Your task to perform on an android device: Search for hotels in Seattle Image 0: 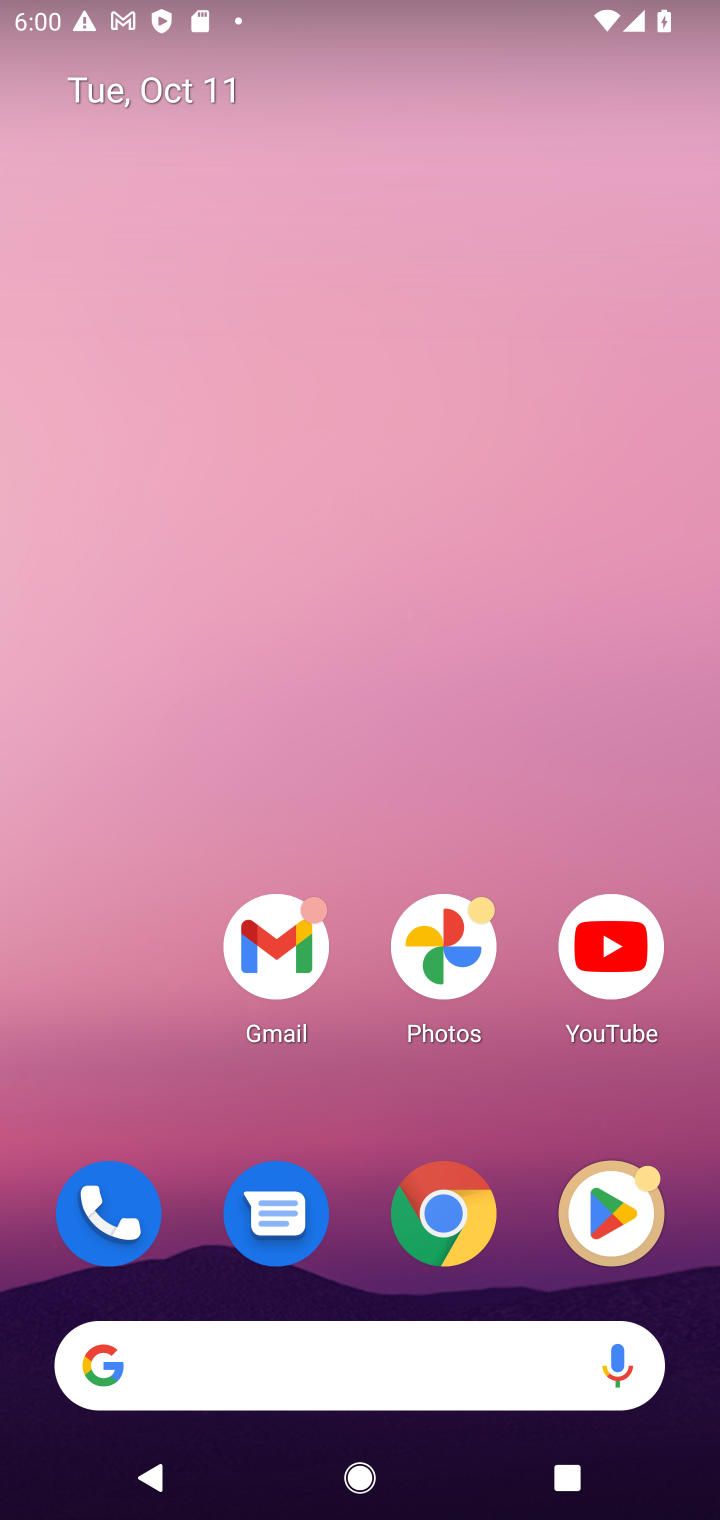
Step 0: drag from (363, 1127) to (404, 422)
Your task to perform on an android device: Search for hotels in Seattle Image 1: 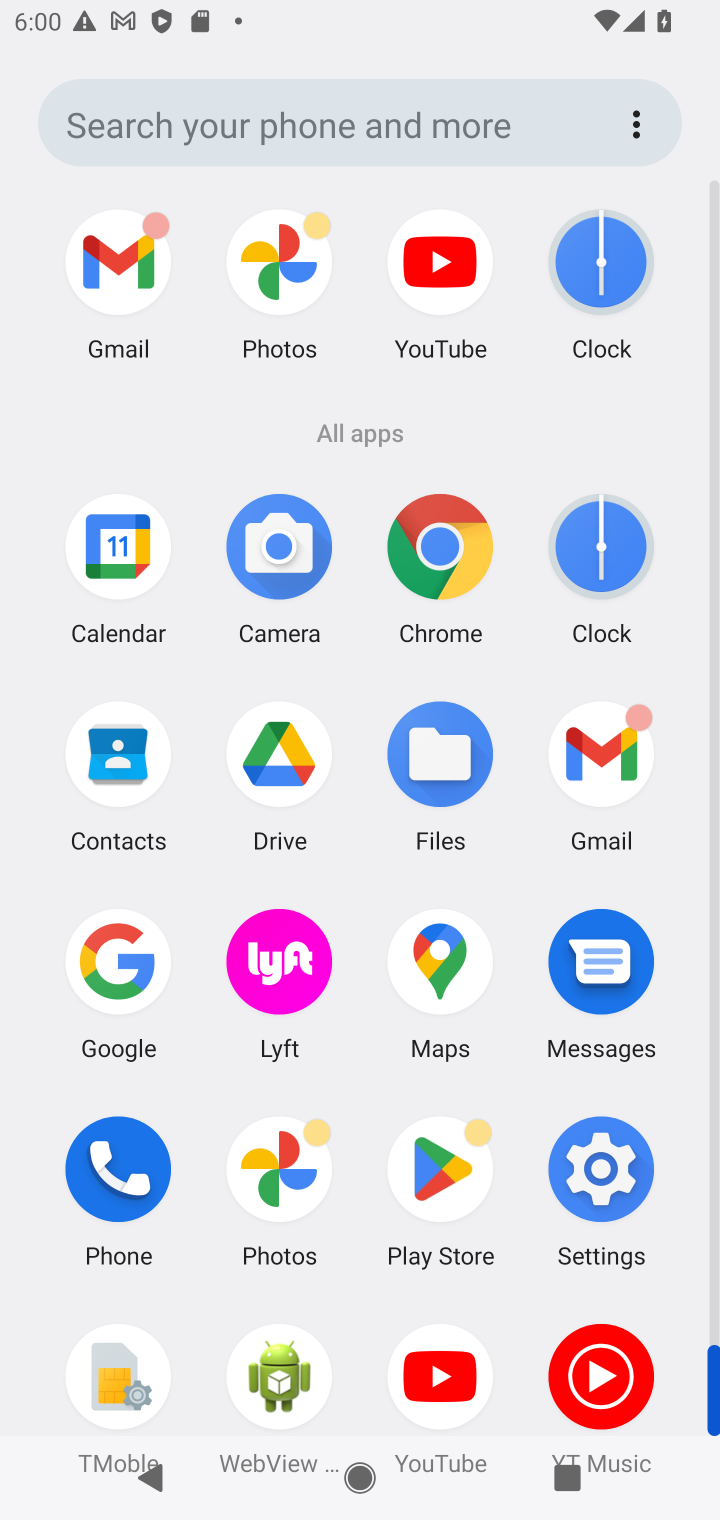
Step 1: click (130, 975)
Your task to perform on an android device: Search for hotels in Seattle Image 2: 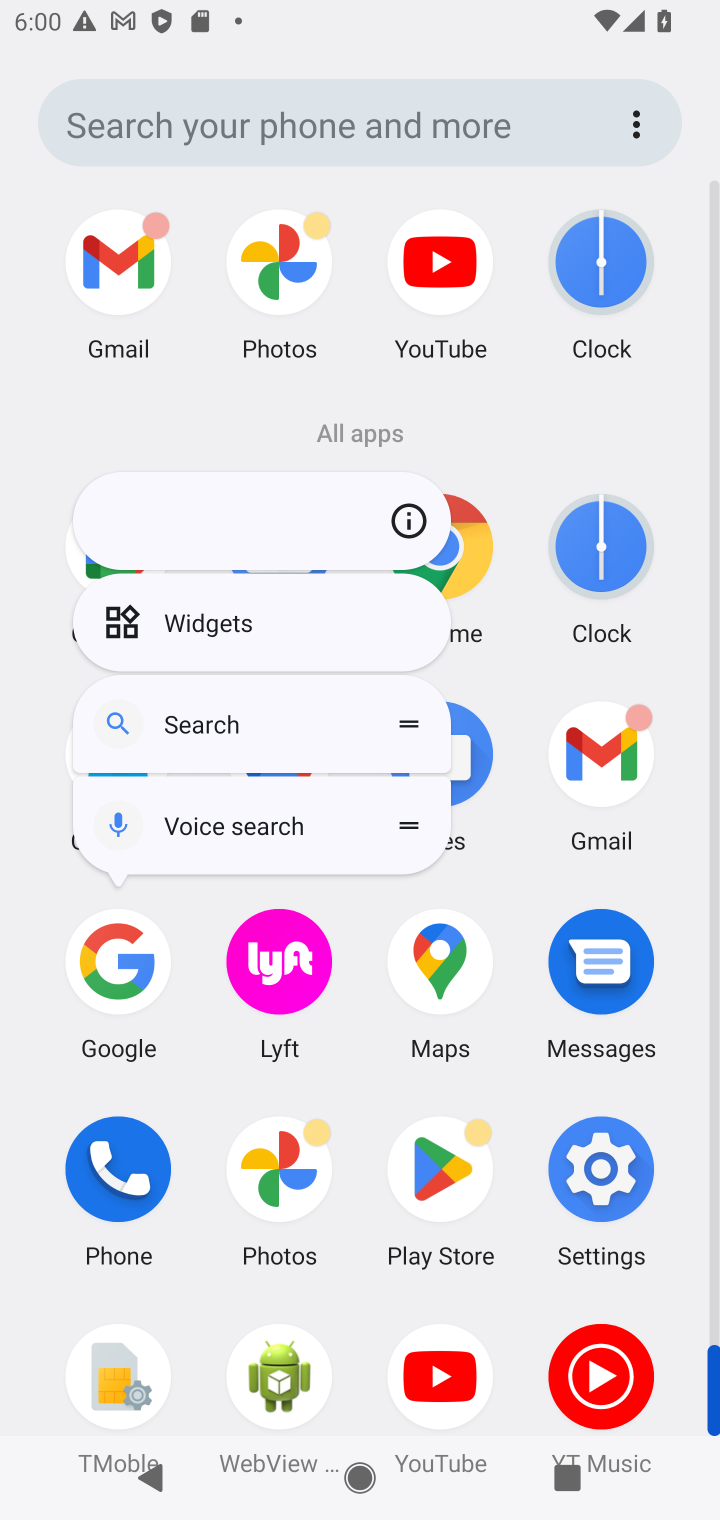
Step 2: click (240, 117)
Your task to perform on an android device: Search for hotels in Seattle Image 3: 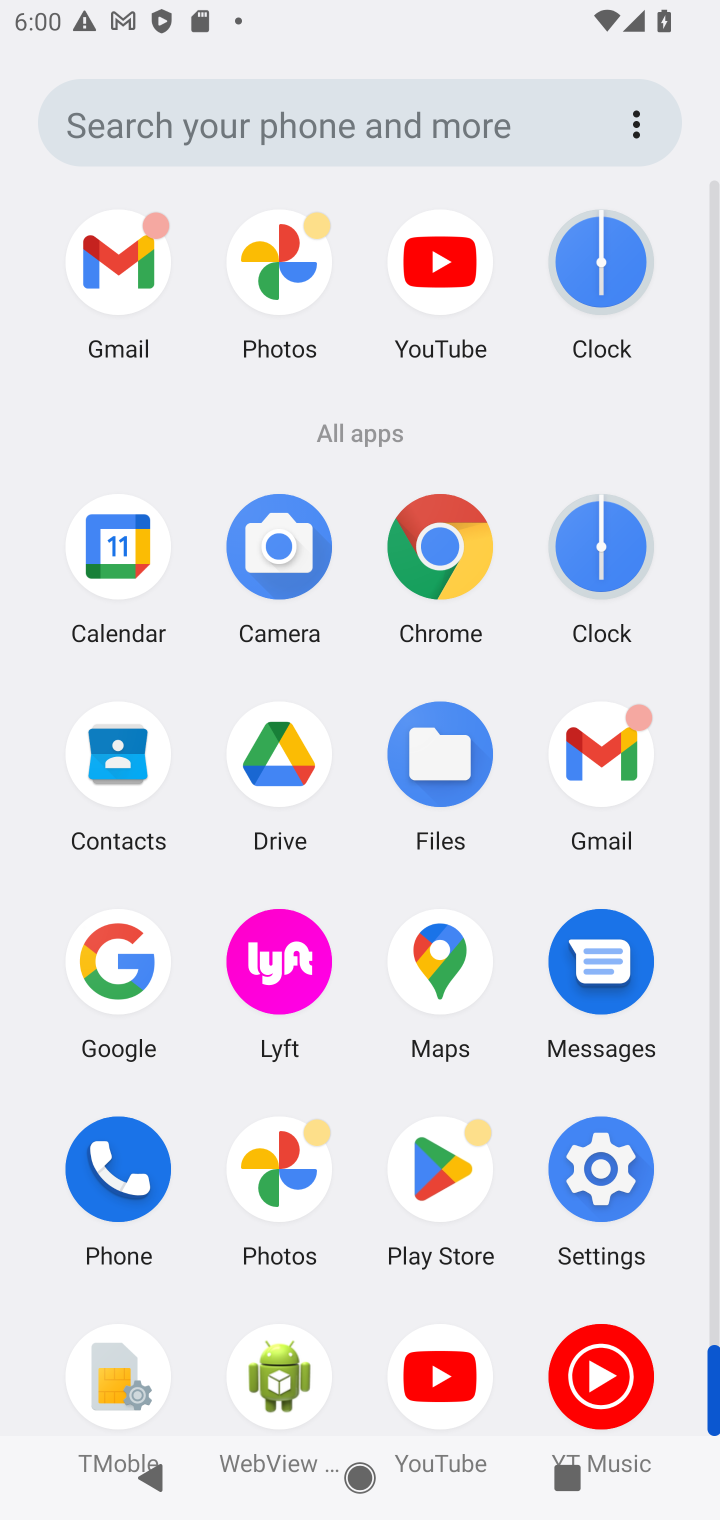
Step 3: click (115, 977)
Your task to perform on an android device: Search for hotels in Seattle Image 4: 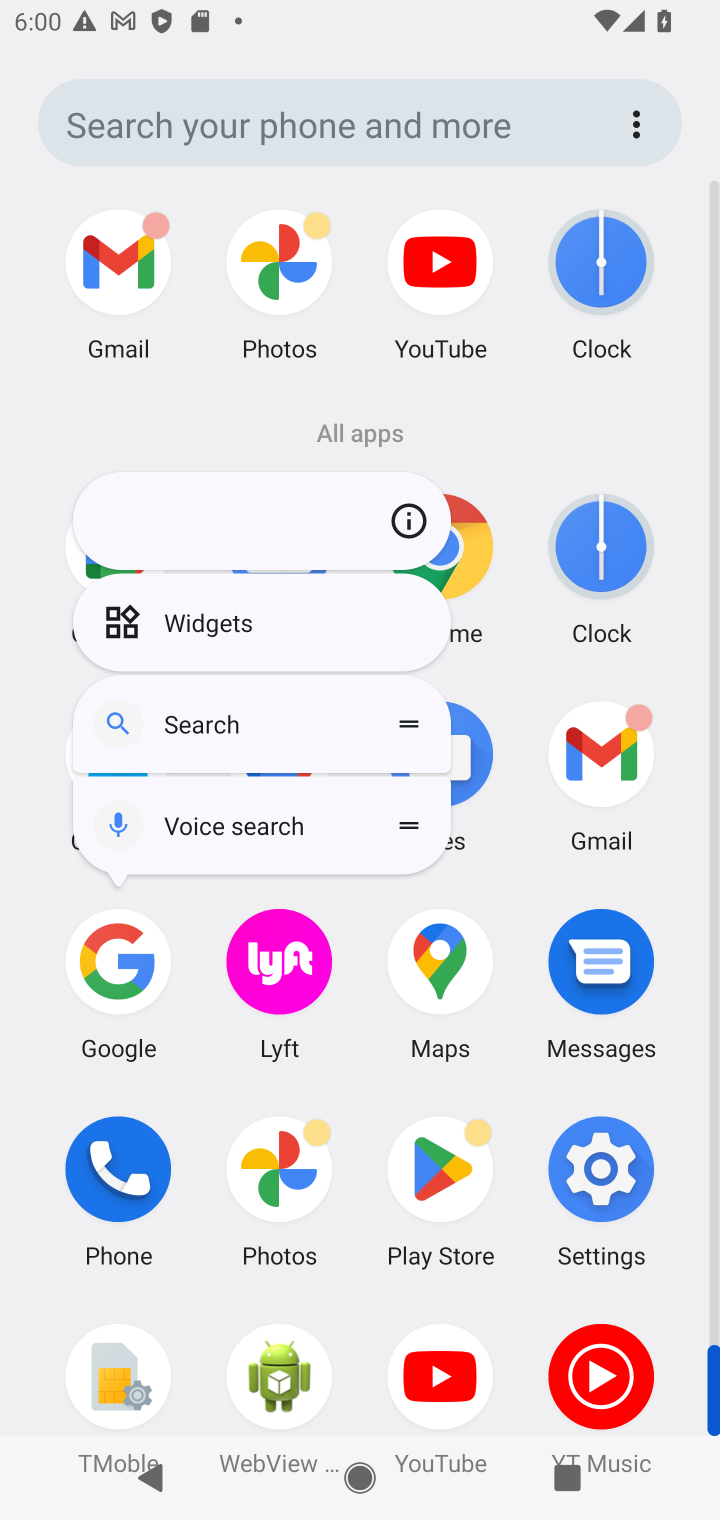
Step 4: click (123, 952)
Your task to perform on an android device: Search for hotels in Seattle Image 5: 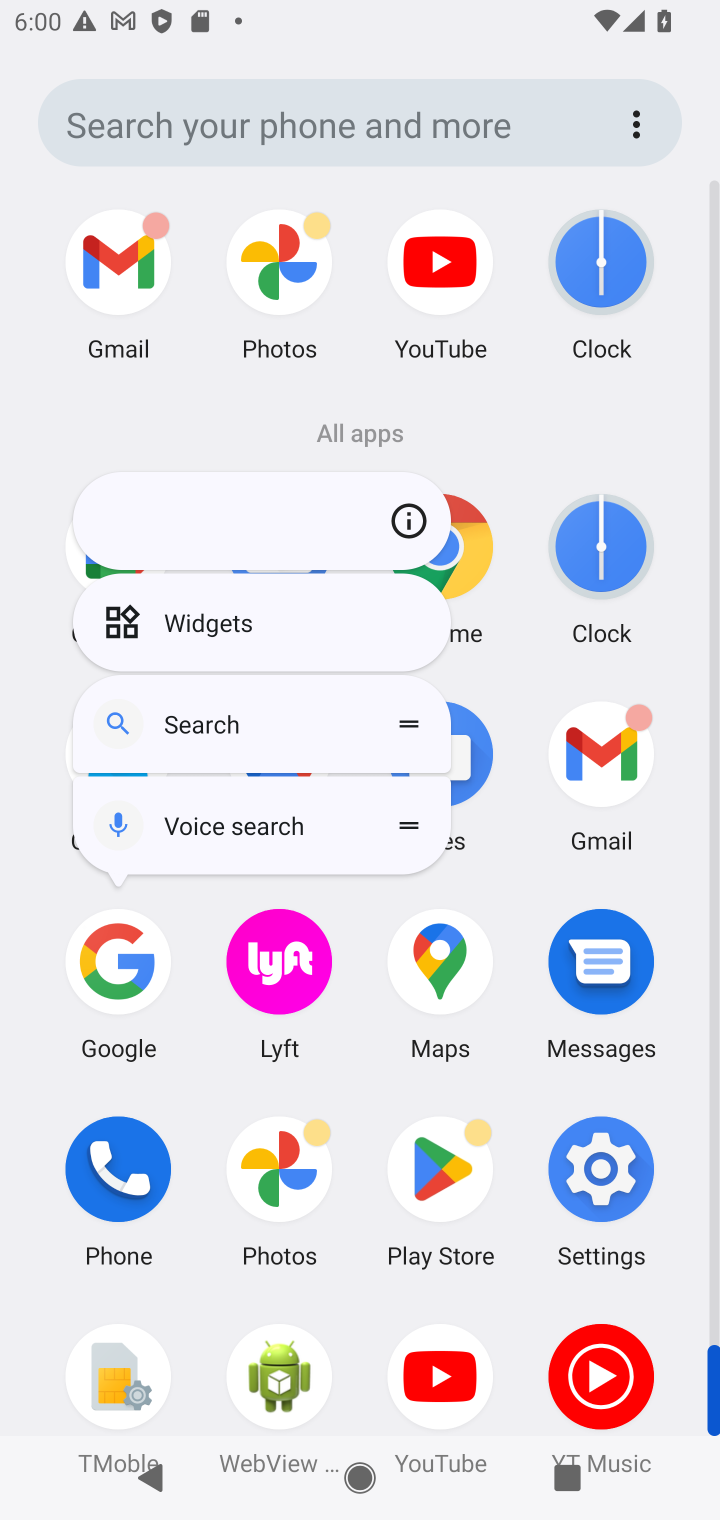
Step 5: click (115, 965)
Your task to perform on an android device: Search for hotels in Seattle Image 6: 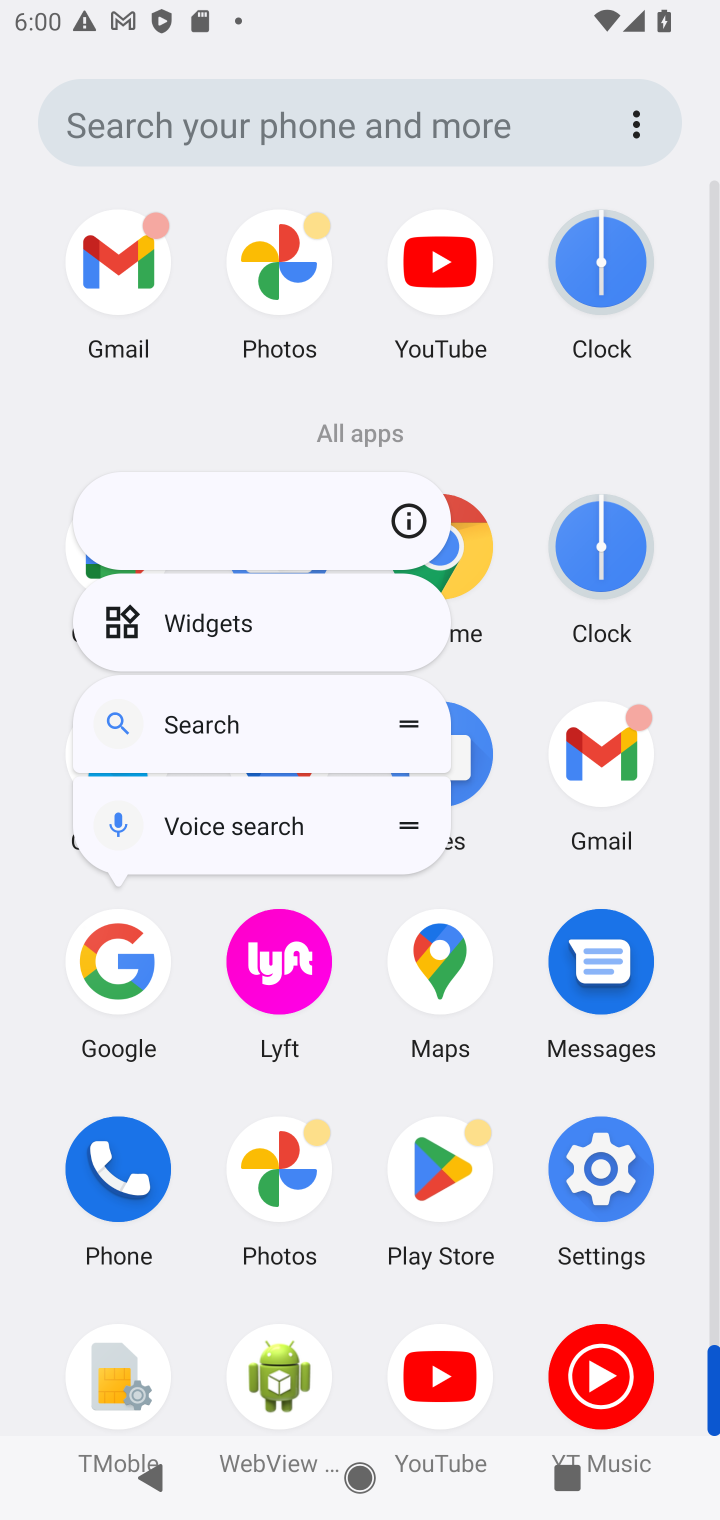
Step 6: click (102, 968)
Your task to perform on an android device: Search for hotels in Seattle Image 7: 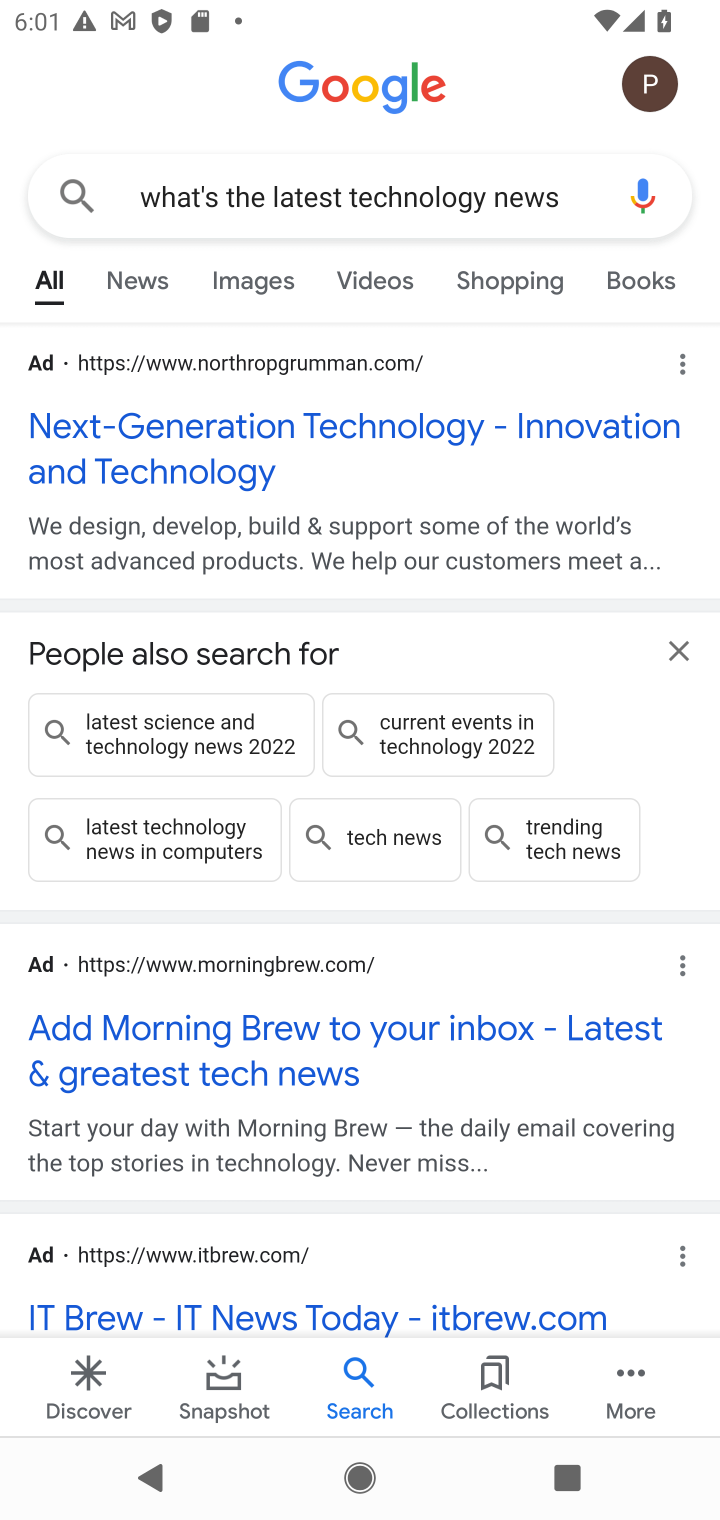
Step 7: click (279, 189)
Your task to perform on an android device: Search for hotels in Seattle Image 8: 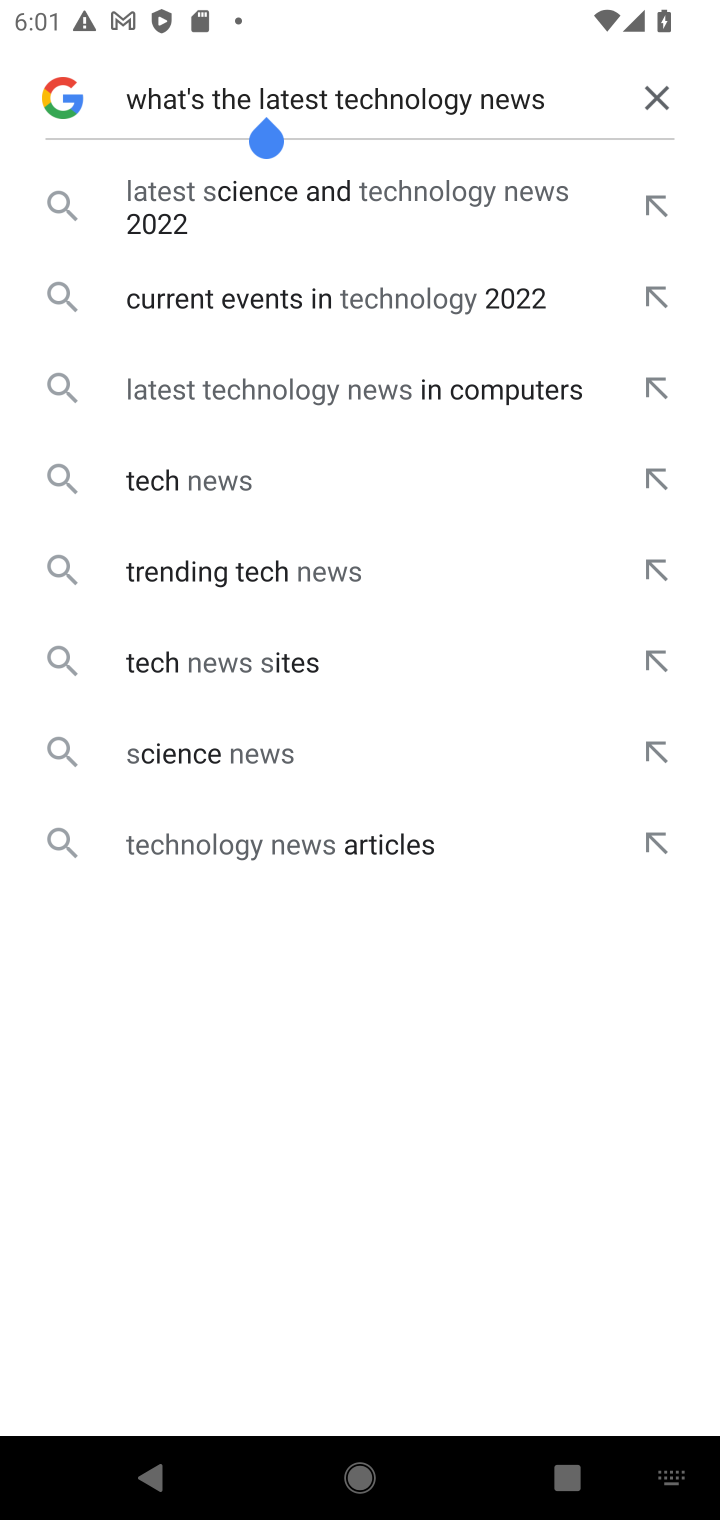
Step 8: click (674, 102)
Your task to perform on an android device: Search for hotels in Seattle Image 9: 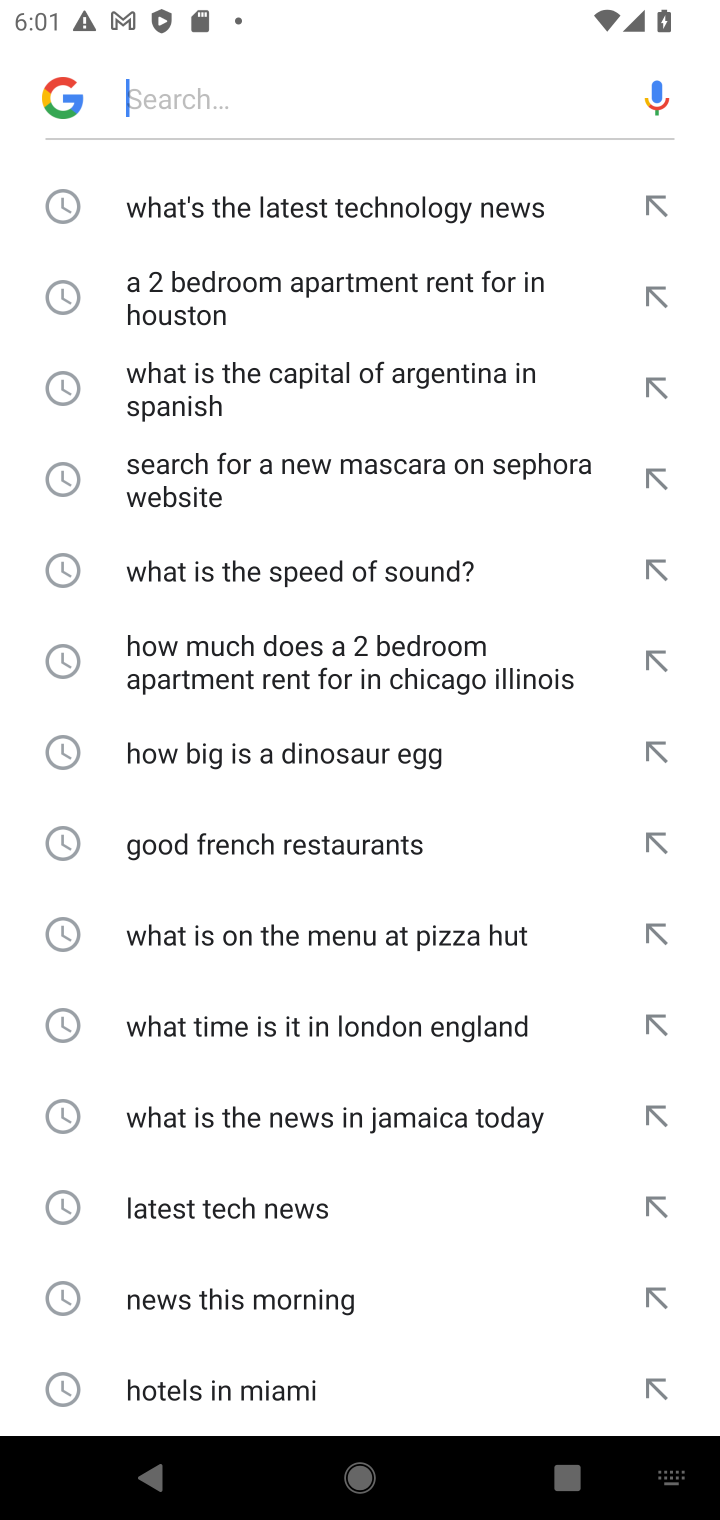
Step 9: type "Search for hotels in Seattle"
Your task to perform on an android device: Search for hotels in Seattle Image 10: 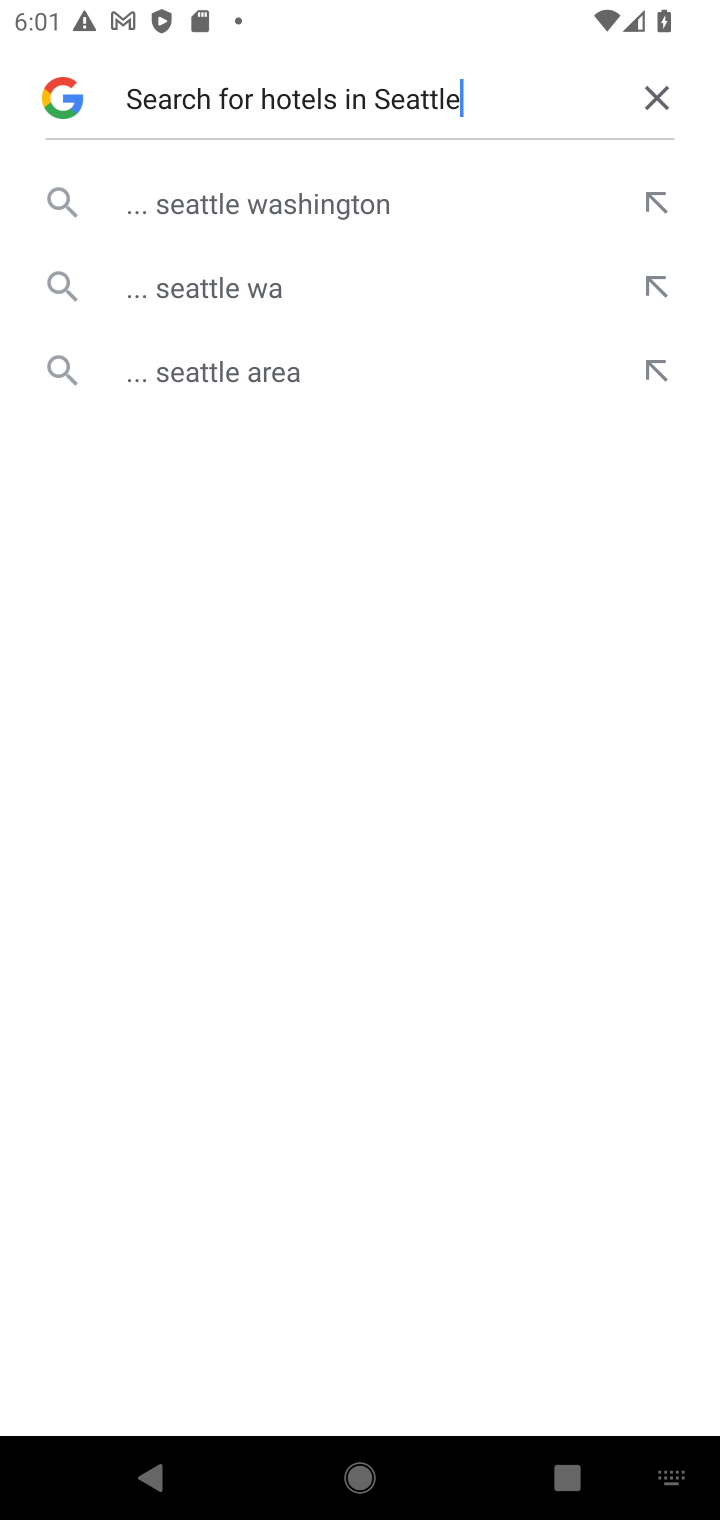
Step 10: click (267, 200)
Your task to perform on an android device: Search for hotels in Seattle Image 11: 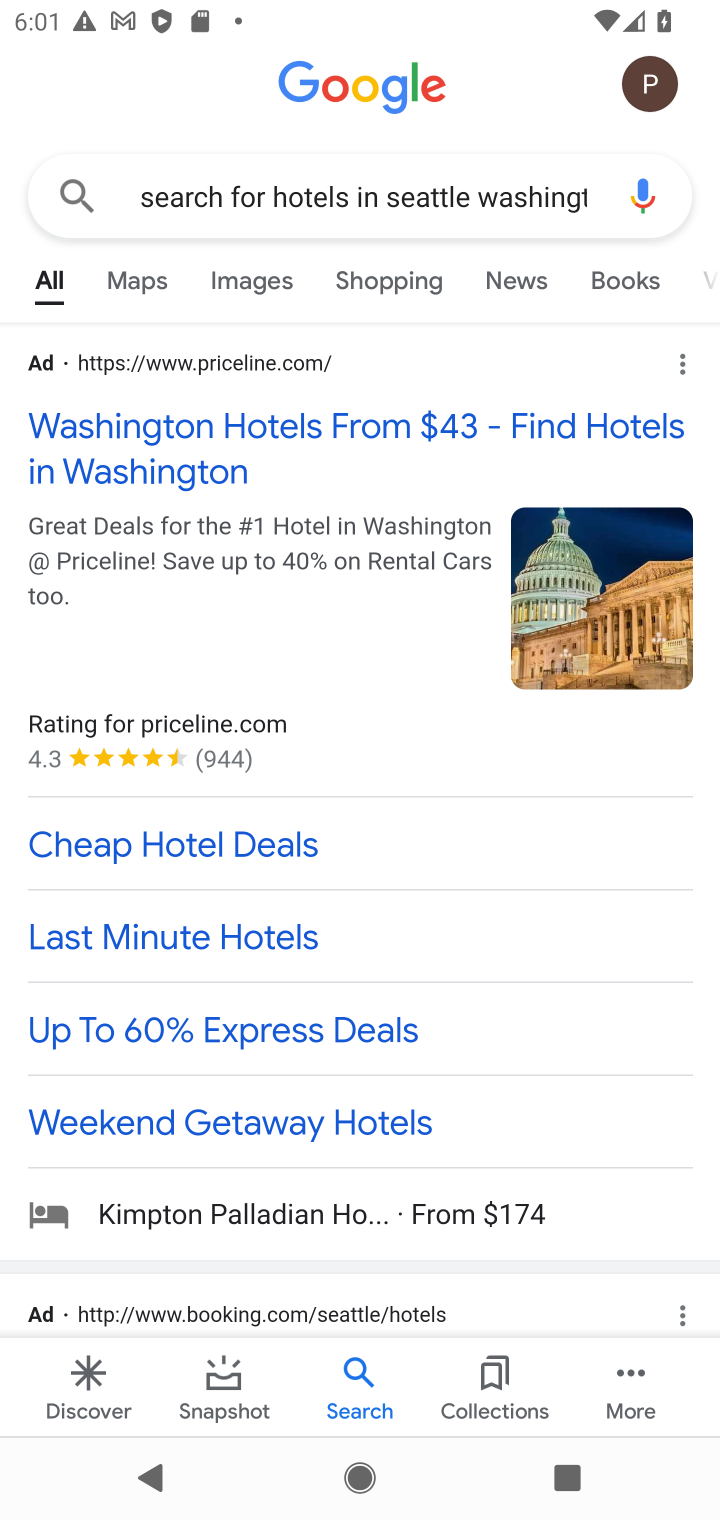
Step 11: click (333, 438)
Your task to perform on an android device: Search for hotels in Seattle Image 12: 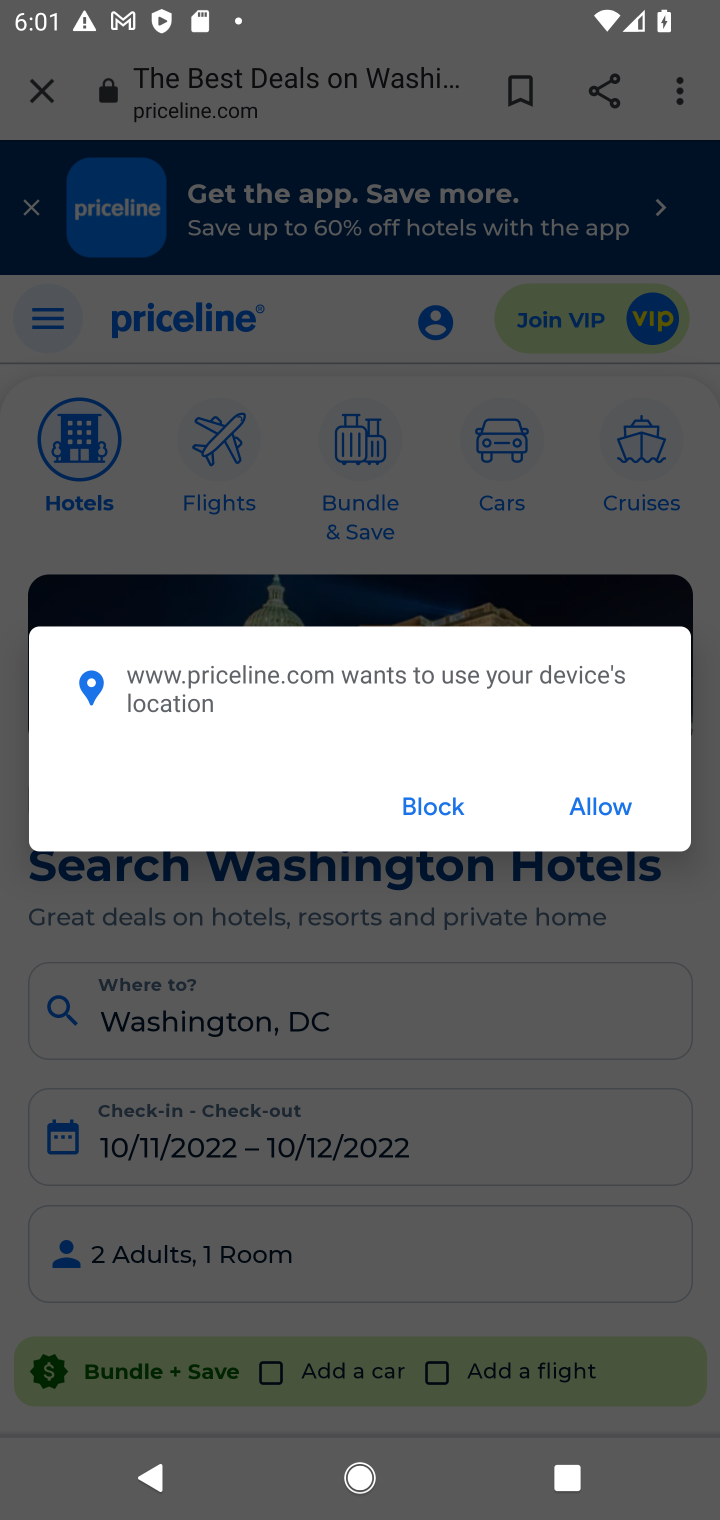
Step 12: task complete